Your task to perform on an android device: When is my next meeting? Image 0: 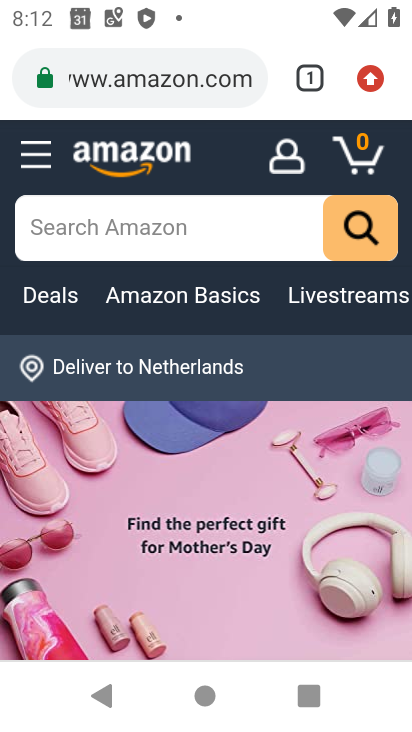
Step 0: press back button
Your task to perform on an android device: When is my next meeting? Image 1: 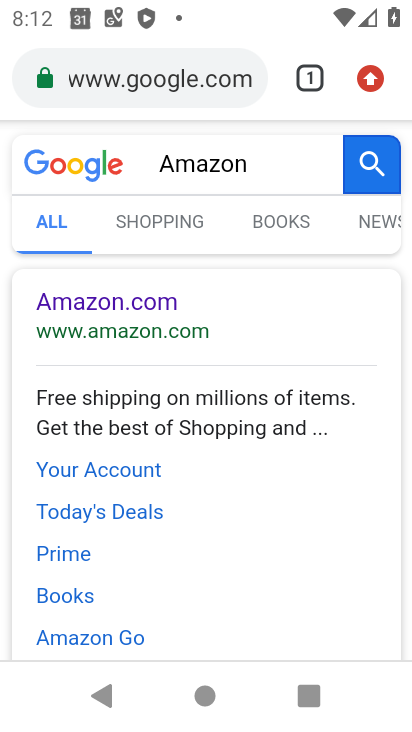
Step 1: press back button
Your task to perform on an android device: When is my next meeting? Image 2: 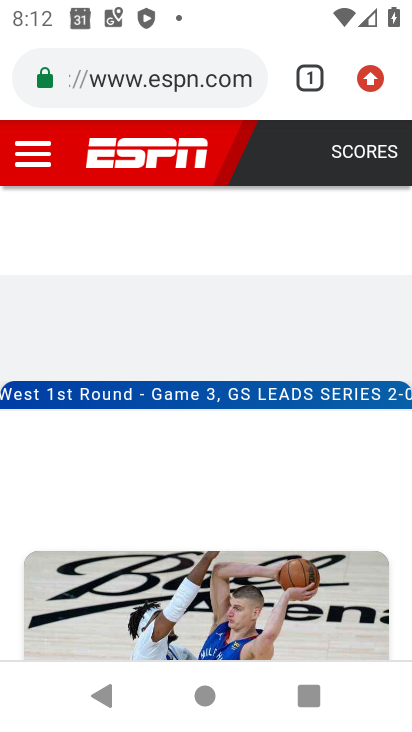
Step 2: press back button
Your task to perform on an android device: When is my next meeting? Image 3: 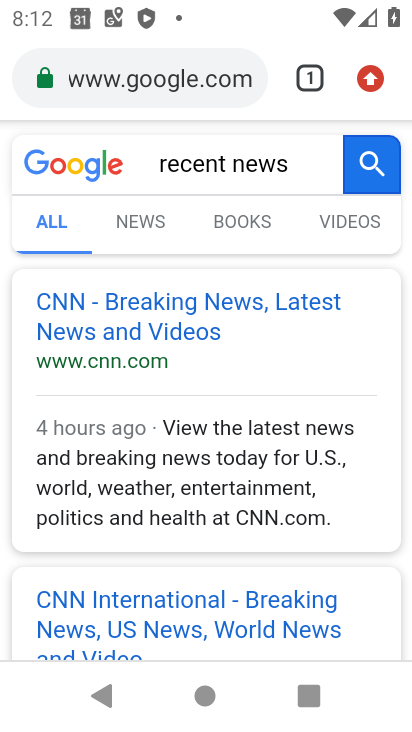
Step 3: press home button
Your task to perform on an android device: When is my next meeting? Image 4: 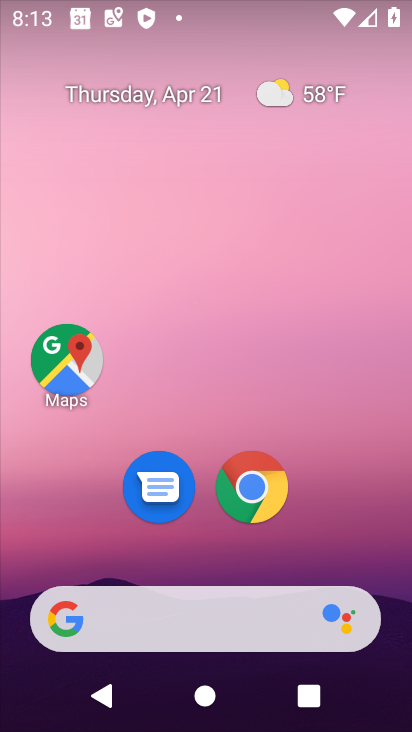
Step 4: drag from (342, 489) to (300, 24)
Your task to perform on an android device: When is my next meeting? Image 5: 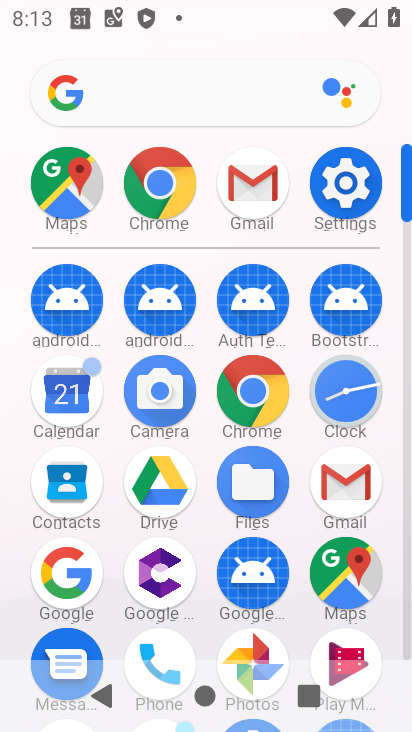
Step 5: drag from (10, 484) to (10, 288)
Your task to perform on an android device: When is my next meeting? Image 6: 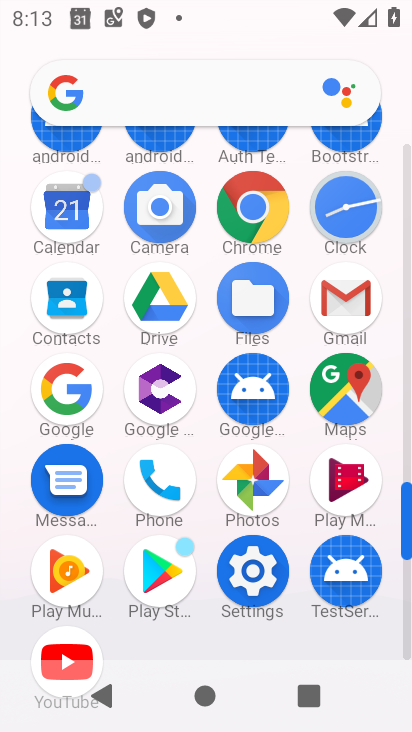
Step 6: click (66, 204)
Your task to perform on an android device: When is my next meeting? Image 7: 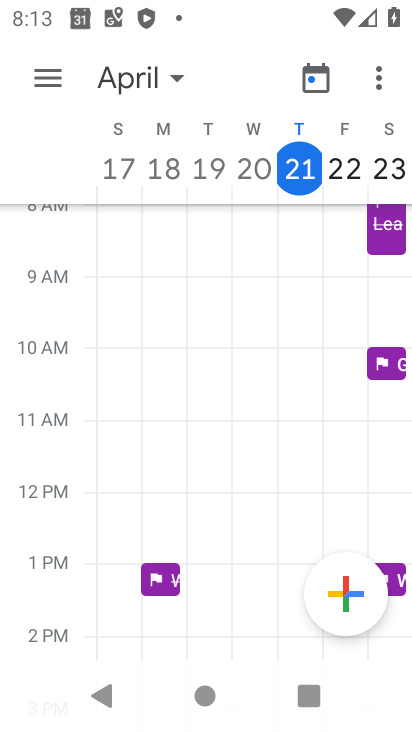
Step 7: click (63, 70)
Your task to perform on an android device: When is my next meeting? Image 8: 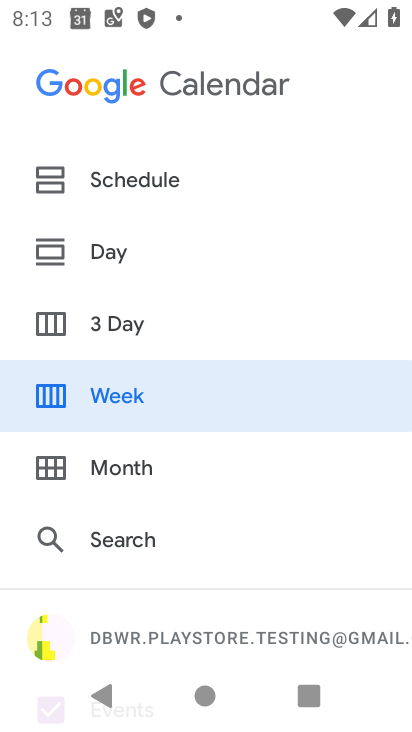
Step 8: drag from (165, 587) to (206, 221)
Your task to perform on an android device: When is my next meeting? Image 9: 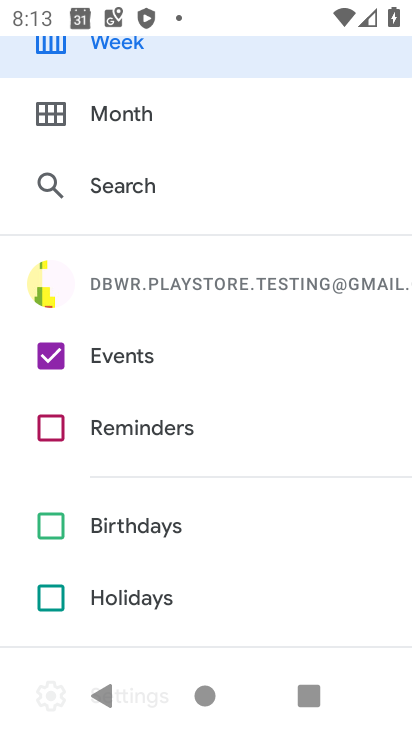
Step 9: drag from (208, 200) to (239, 470)
Your task to perform on an android device: When is my next meeting? Image 10: 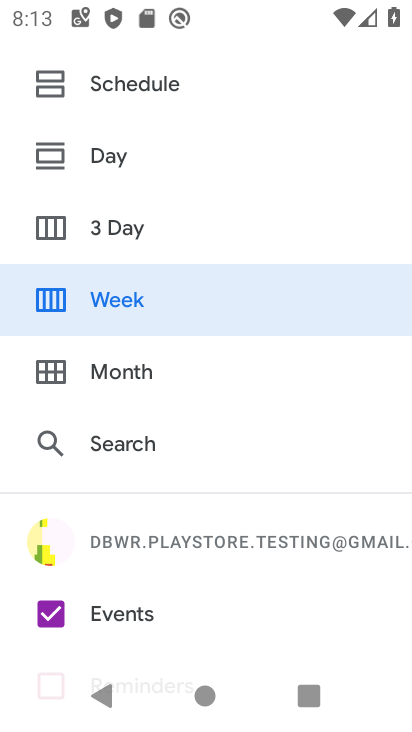
Step 10: drag from (378, 125) to (60, 191)
Your task to perform on an android device: When is my next meeting? Image 11: 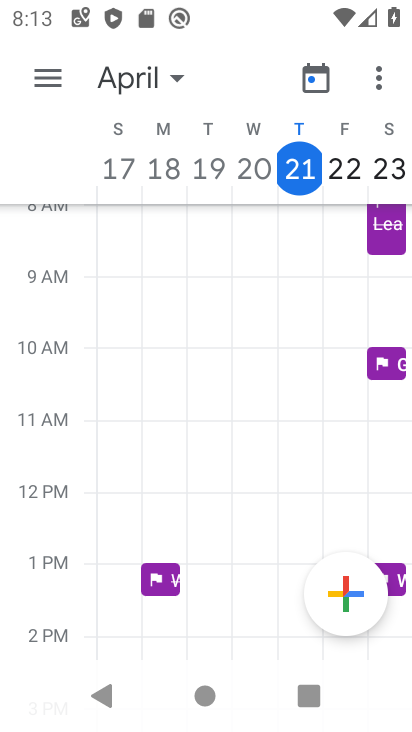
Step 11: drag from (316, 545) to (166, 226)
Your task to perform on an android device: When is my next meeting? Image 12: 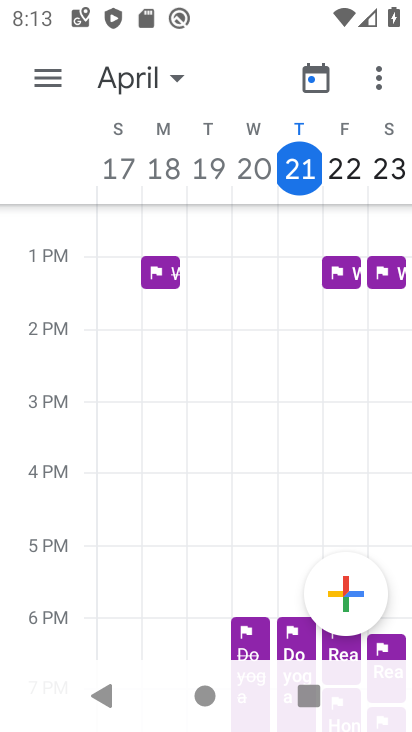
Step 12: click (48, 74)
Your task to perform on an android device: When is my next meeting? Image 13: 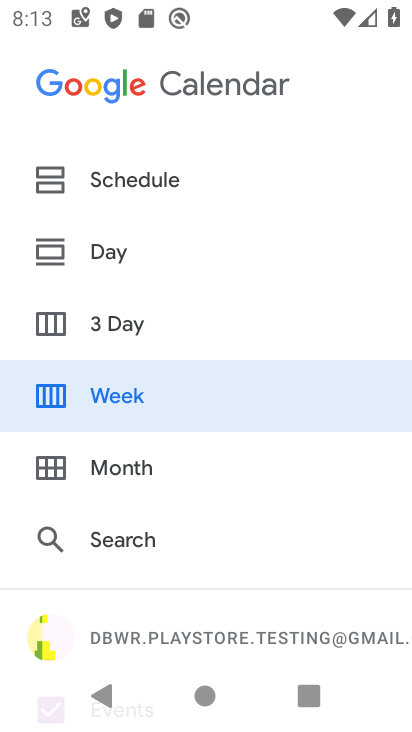
Step 13: click (139, 178)
Your task to perform on an android device: When is my next meeting? Image 14: 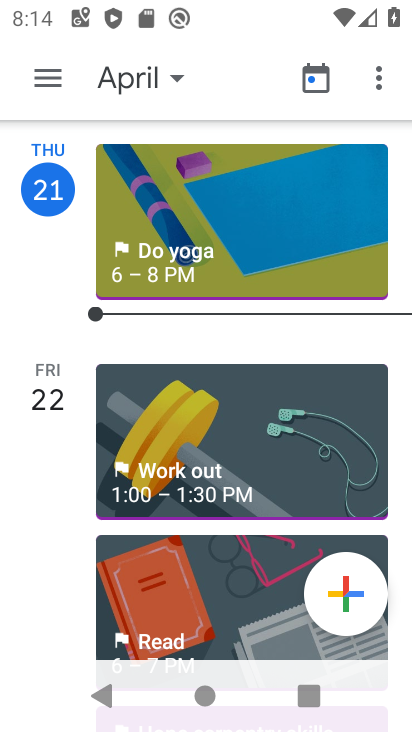
Step 14: task complete